Your task to perform on an android device: turn on notifications settings in the gmail app Image 0: 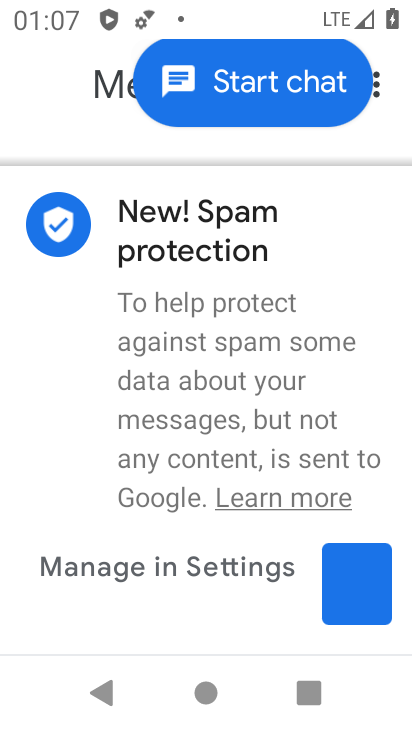
Step 0: press home button
Your task to perform on an android device: turn on notifications settings in the gmail app Image 1: 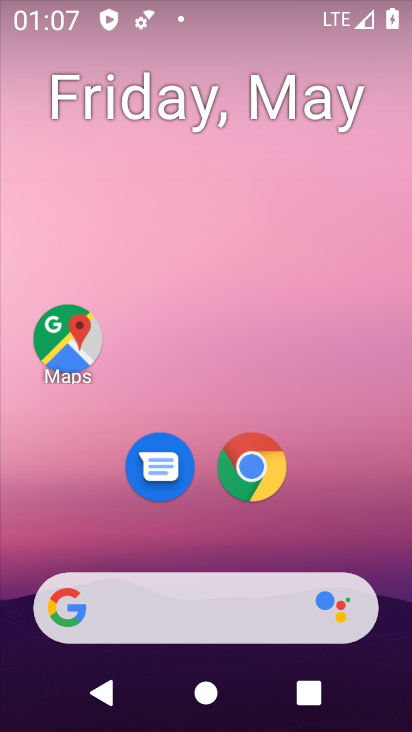
Step 1: drag from (295, 506) to (310, 203)
Your task to perform on an android device: turn on notifications settings in the gmail app Image 2: 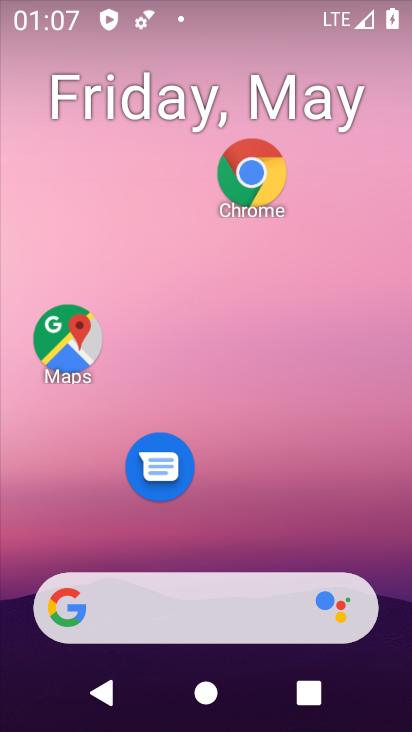
Step 2: drag from (248, 623) to (269, 272)
Your task to perform on an android device: turn on notifications settings in the gmail app Image 3: 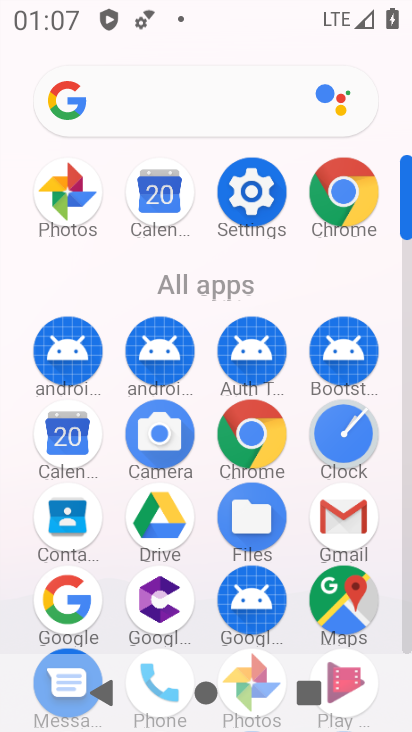
Step 3: click (342, 531)
Your task to perform on an android device: turn on notifications settings in the gmail app Image 4: 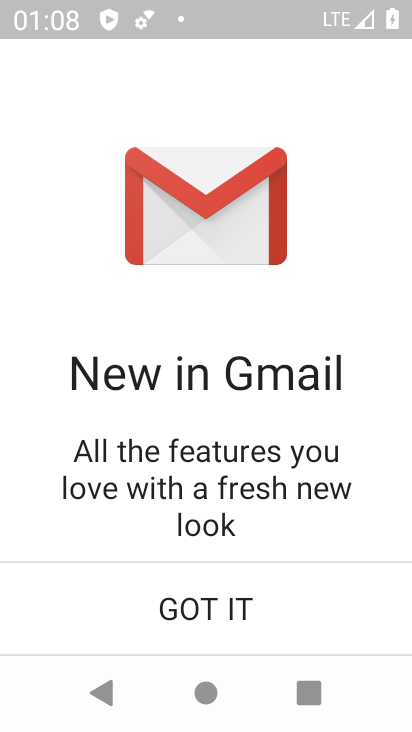
Step 4: click (224, 597)
Your task to perform on an android device: turn on notifications settings in the gmail app Image 5: 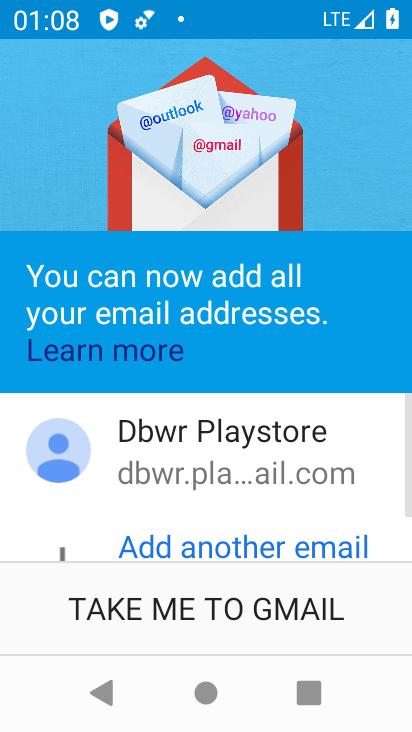
Step 5: click (224, 598)
Your task to perform on an android device: turn on notifications settings in the gmail app Image 6: 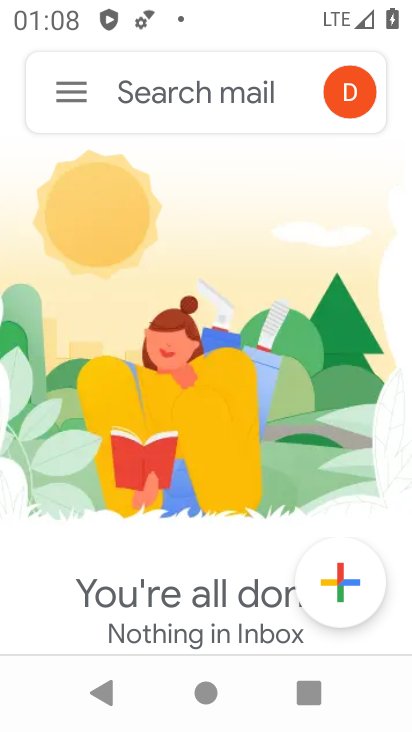
Step 6: click (59, 106)
Your task to perform on an android device: turn on notifications settings in the gmail app Image 7: 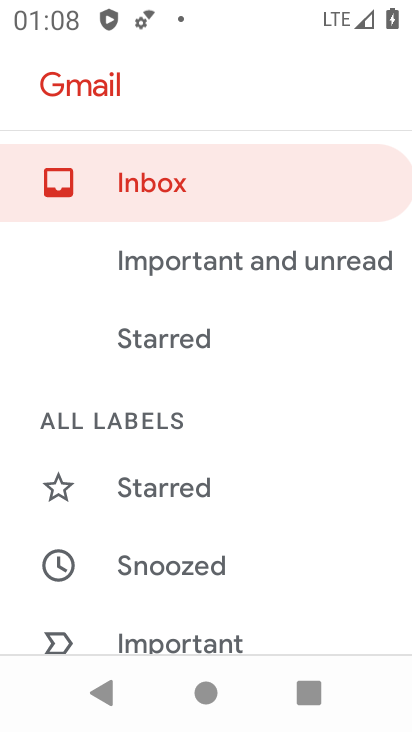
Step 7: drag from (201, 509) to (225, 338)
Your task to perform on an android device: turn on notifications settings in the gmail app Image 8: 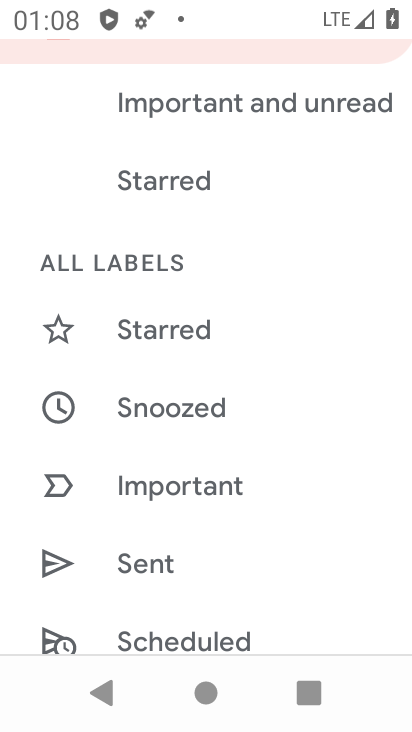
Step 8: drag from (215, 561) to (232, 385)
Your task to perform on an android device: turn on notifications settings in the gmail app Image 9: 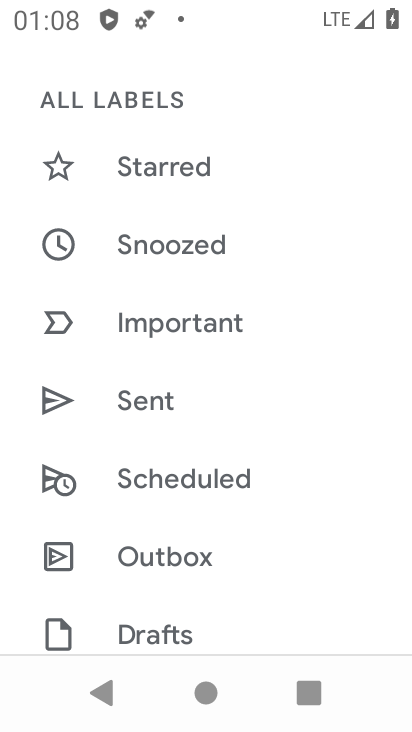
Step 9: drag from (247, 564) to (239, 339)
Your task to perform on an android device: turn on notifications settings in the gmail app Image 10: 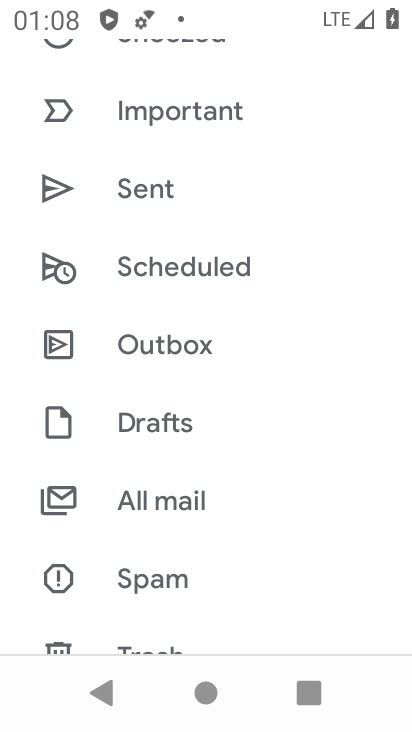
Step 10: drag from (215, 558) to (209, 351)
Your task to perform on an android device: turn on notifications settings in the gmail app Image 11: 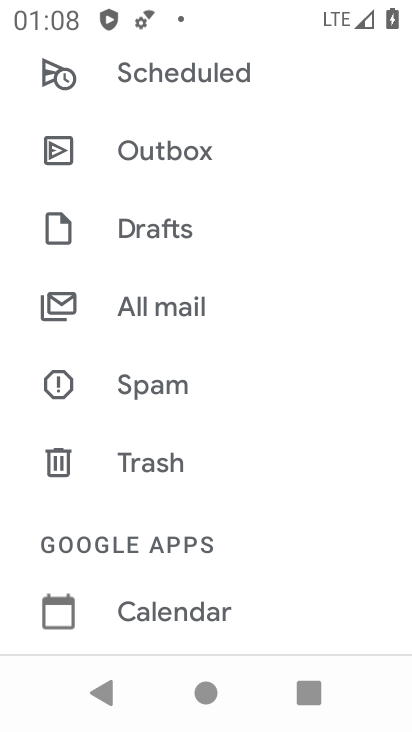
Step 11: drag from (191, 579) to (192, 363)
Your task to perform on an android device: turn on notifications settings in the gmail app Image 12: 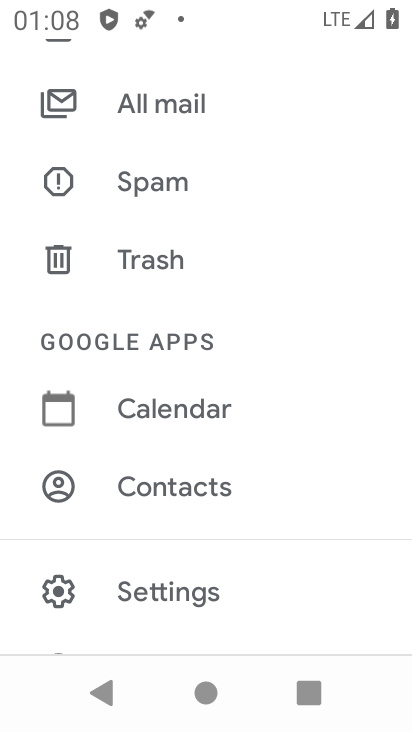
Step 12: click (155, 597)
Your task to perform on an android device: turn on notifications settings in the gmail app Image 13: 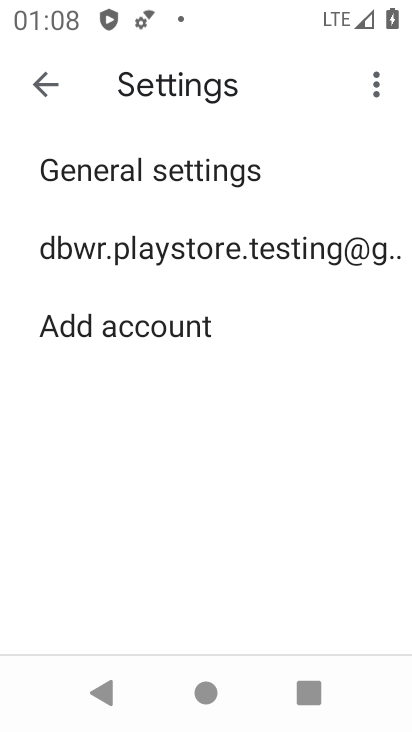
Step 13: click (167, 258)
Your task to perform on an android device: turn on notifications settings in the gmail app Image 14: 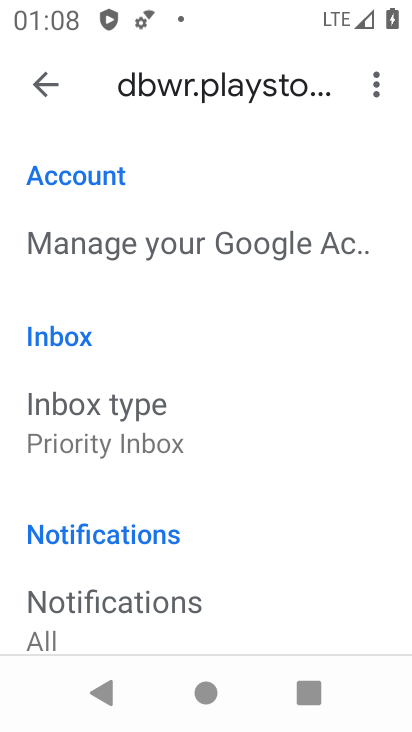
Step 14: click (147, 593)
Your task to perform on an android device: turn on notifications settings in the gmail app Image 15: 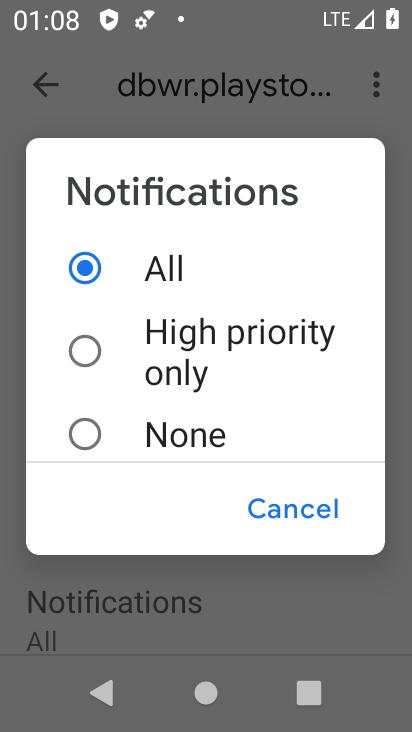
Step 15: task complete